Your task to perform on an android device: Open settings Image 0: 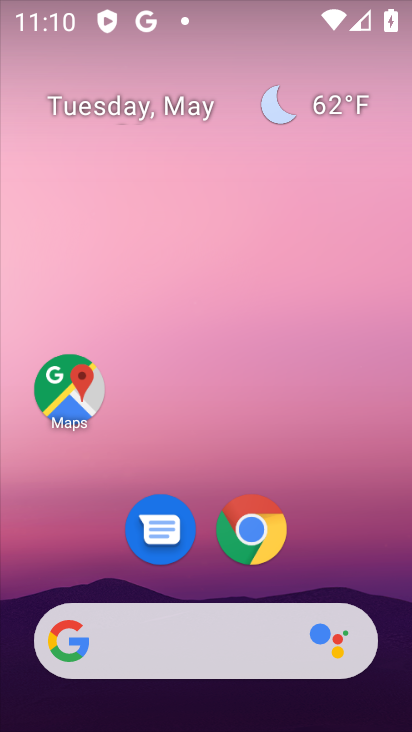
Step 0: drag from (151, 719) to (182, 36)
Your task to perform on an android device: Open settings Image 1: 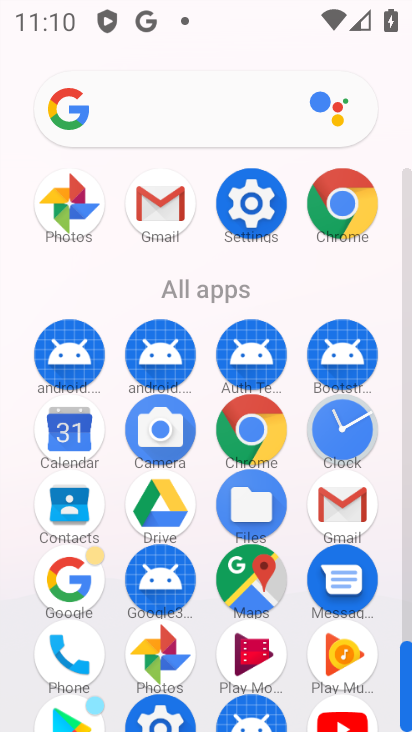
Step 1: click (265, 225)
Your task to perform on an android device: Open settings Image 2: 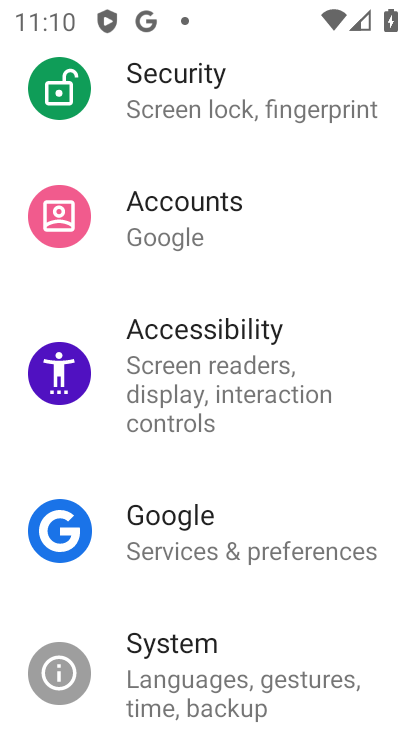
Step 2: task complete